Your task to perform on an android device: open app "Instagram" (install if not already installed) Image 0: 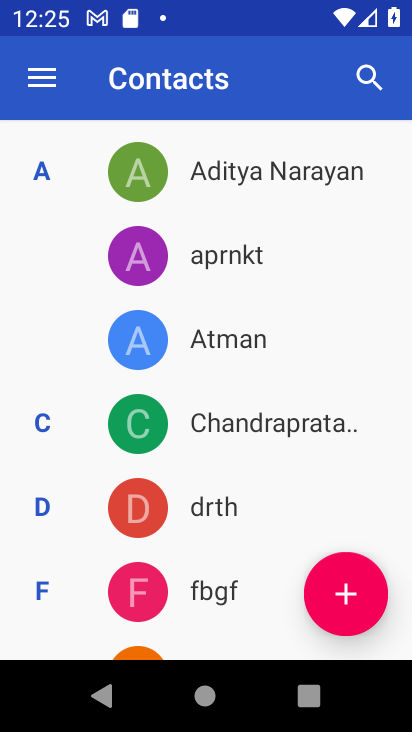
Step 0: press home button
Your task to perform on an android device: open app "Instagram" (install if not already installed) Image 1: 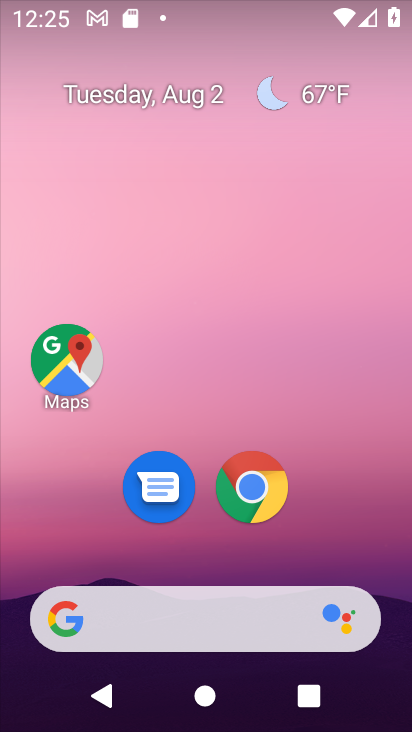
Step 1: drag from (231, 609) to (255, 152)
Your task to perform on an android device: open app "Instagram" (install if not already installed) Image 2: 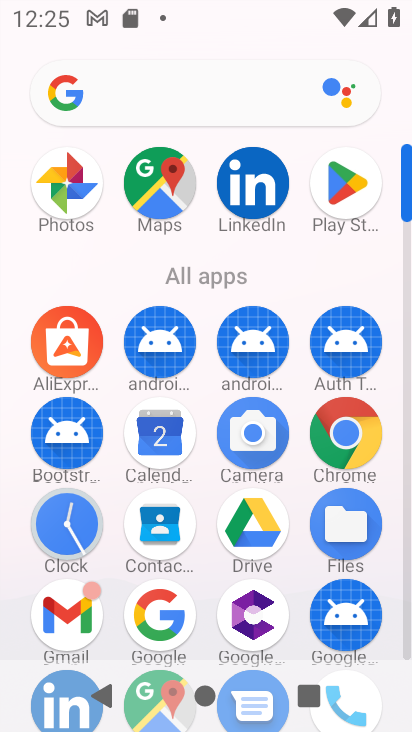
Step 2: click (328, 214)
Your task to perform on an android device: open app "Instagram" (install if not already installed) Image 3: 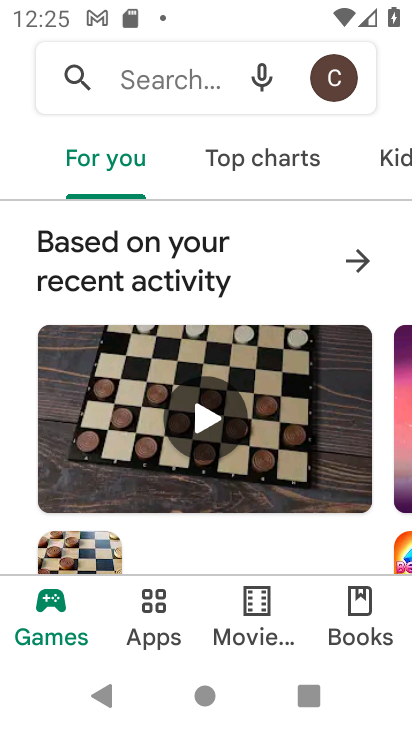
Step 3: click (166, 89)
Your task to perform on an android device: open app "Instagram" (install if not already installed) Image 4: 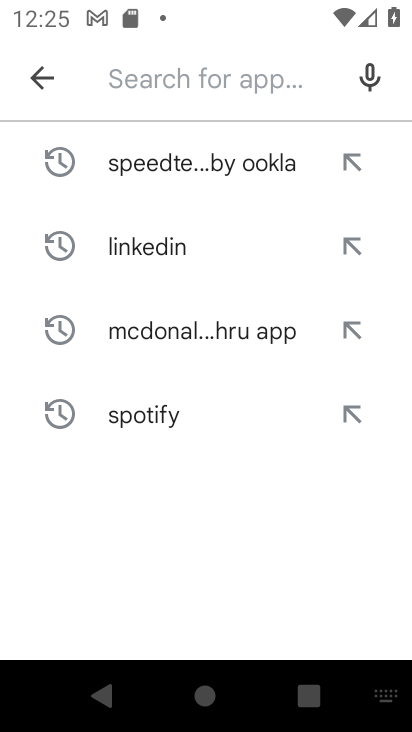
Step 4: type "Instagram"
Your task to perform on an android device: open app "Instagram" (install if not already installed) Image 5: 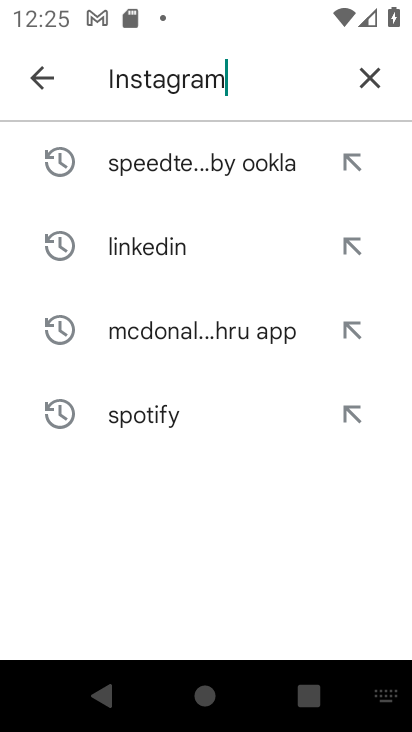
Step 5: type ""
Your task to perform on an android device: open app "Instagram" (install if not already installed) Image 6: 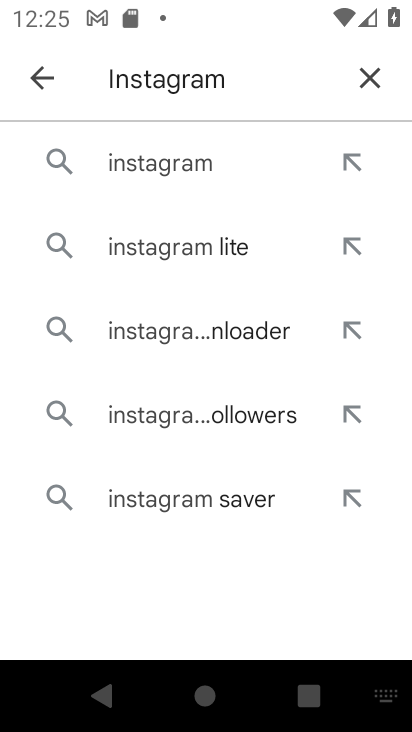
Step 6: click (157, 163)
Your task to perform on an android device: open app "Instagram" (install if not already installed) Image 7: 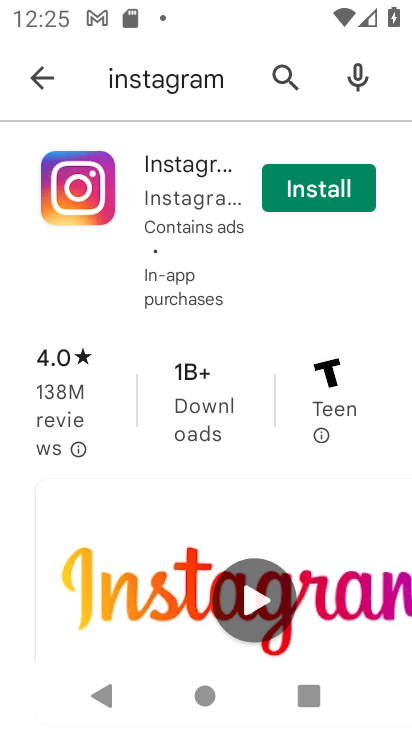
Step 7: click (354, 200)
Your task to perform on an android device: open app "Instagram" (install if not already installed) Image 8: 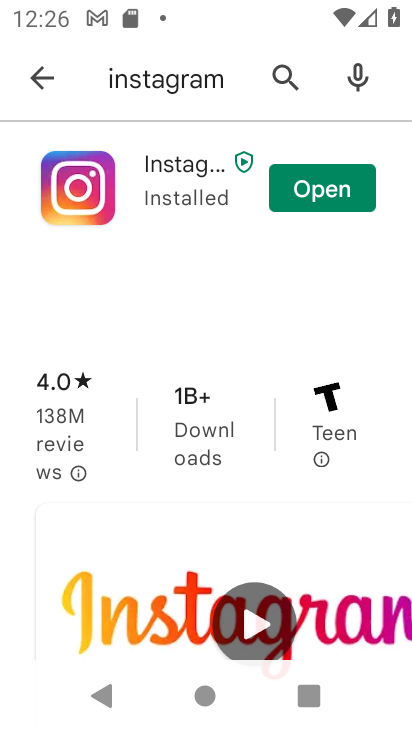
Step 8: click (339, 195)
Your task to perform on an android device: open app "Instagram" (install if not already installed) Image 9: 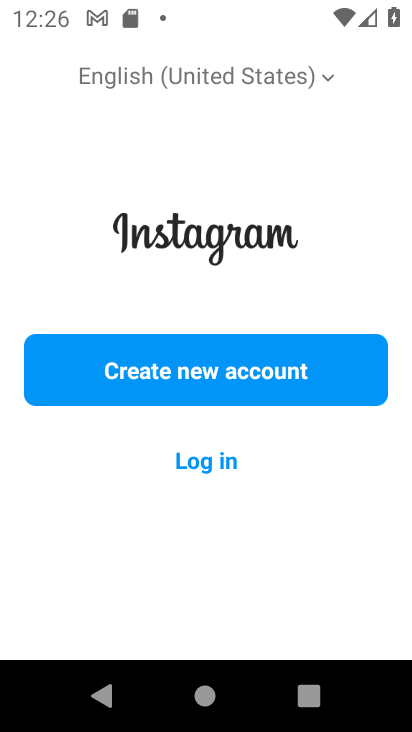
Step 9: task complete